Your task to perform on an android device: Open eBay Image 0: 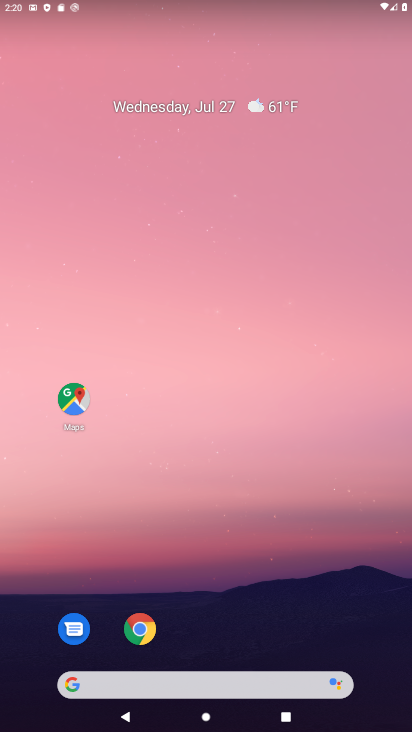
Step 0: drag from (286, 594) to (306, 0)
Your task to perform on an android device: Open eBay Image 1: 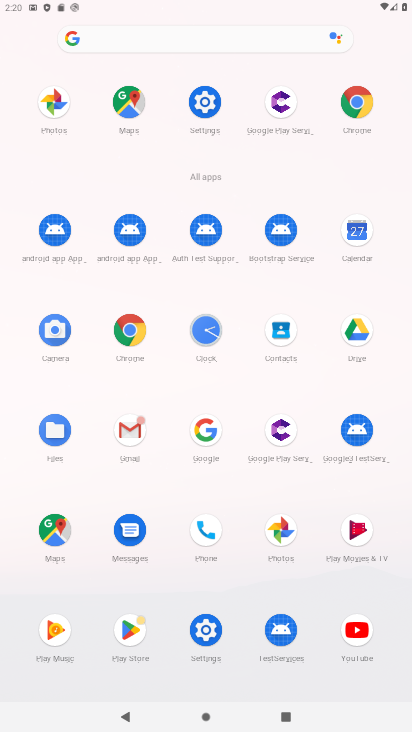
Step 1: click (130, 323)
Your task to perform on an android device: Open eBay Image 2: 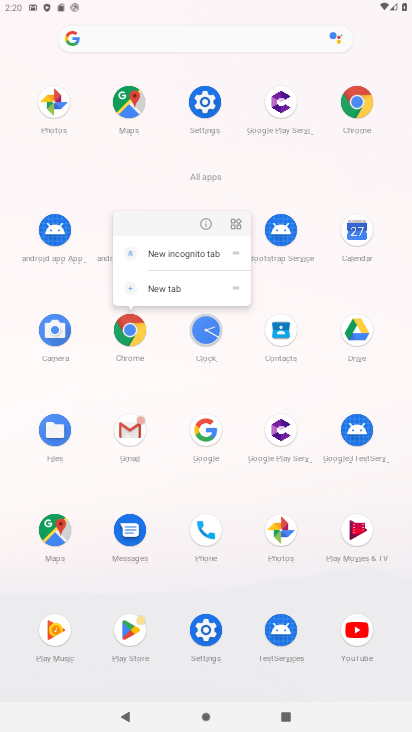
Step 2: click (122, 327)
Your task to perform on an android device: Open eBay Image 3: 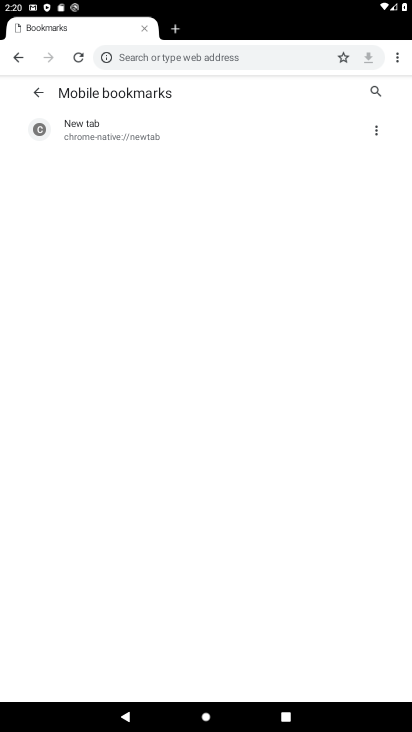
Step 3: click (187, 51)
Your task to perform on an android device: Open eBay Image 4: 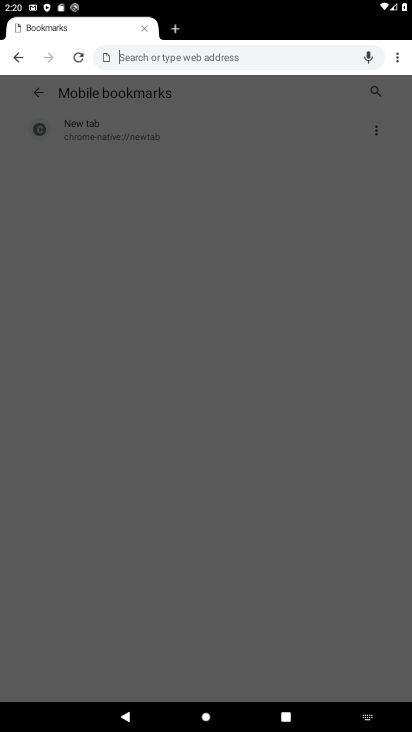
Step 4: type "eBay"
Your task to perform on an android device: Open eBay Image 5: 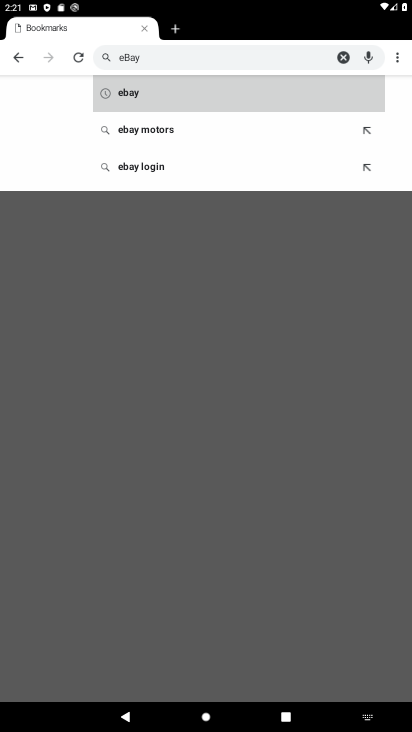
Step 5: click (149, 56)
Your task to perform on an android device: Open eBay Image 6: 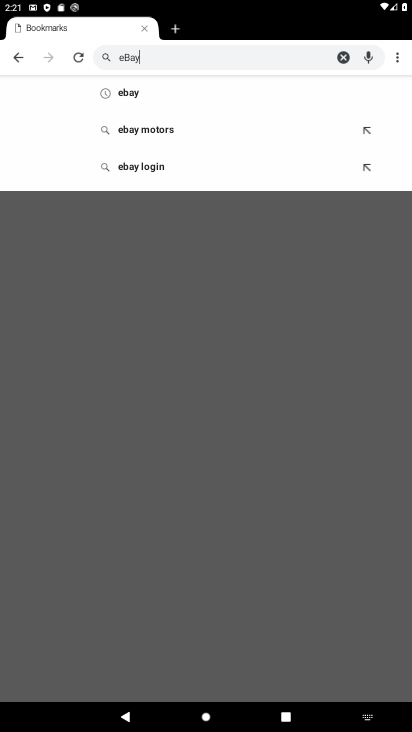
Step 6: click (126, 93)
Your task to perform on an android device: Open eBay Image 7: 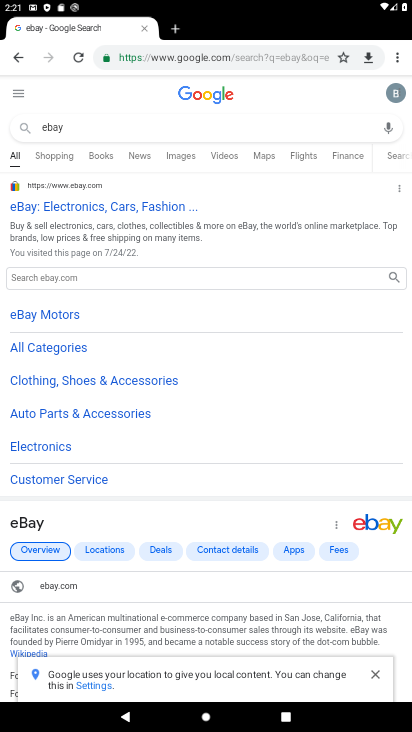
Step 7: click (16, 205)
Your task to perform on an android device: Open eBay Image 8: 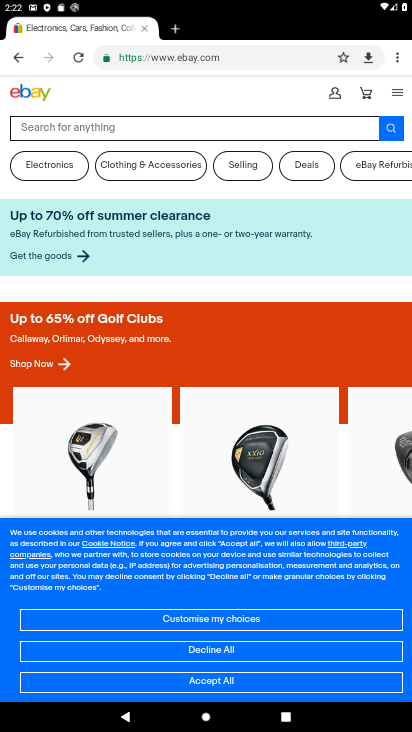
Step 8: task complete